Your task to perform on an android device: turn off wifi Image 0: 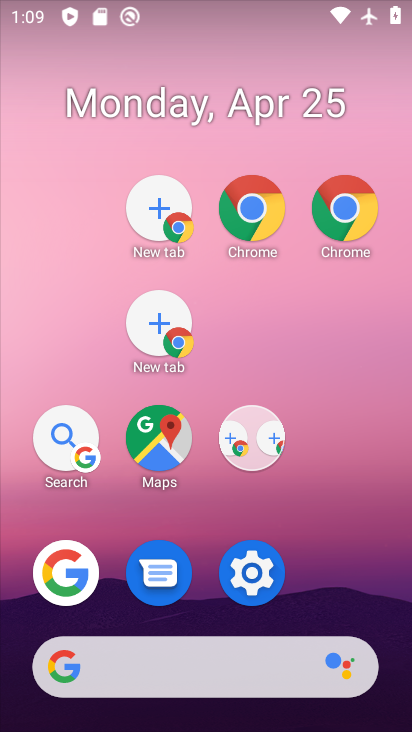
Step 0: drag from (323, 686) to (166, 112)
Your task to perform on an android device: turn off wifi Image 1: 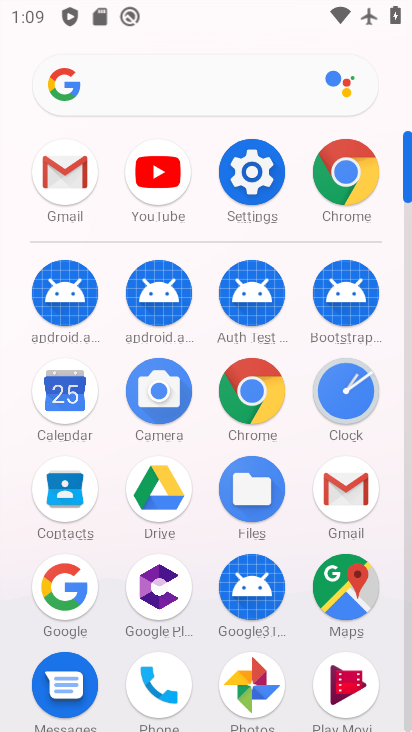
Step 1: click (250, 165)
Your task to perform on an android device: turn off wifi Image 2: 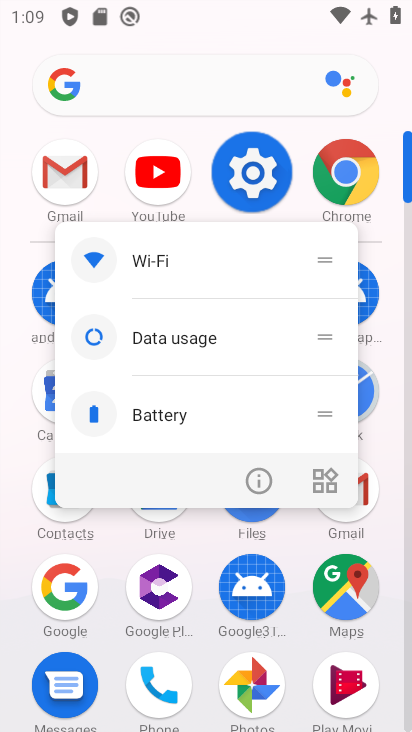
Step 2: click (251, 165)
Your task to perform on an android device: turn off wifi Image 3: 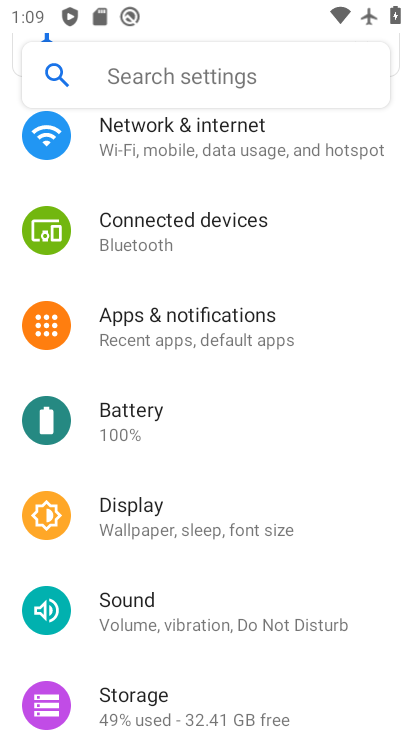
Step 3: click (181, 150)
Your task to perform on an android device: turn off wifi Image 4: 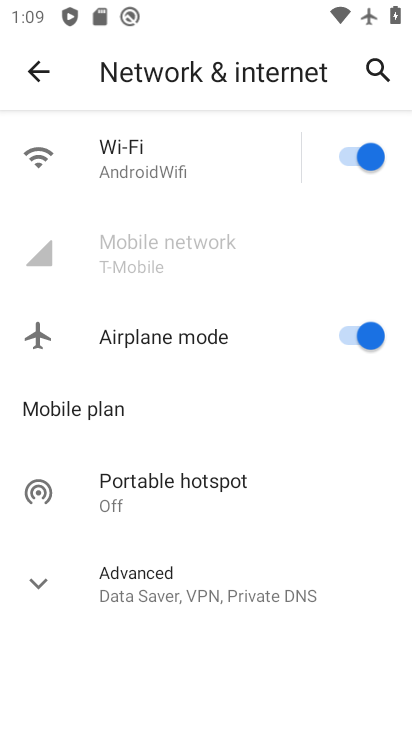
Step 4: click (360, 158)
Your task to perform on an android device: turn off wifi Image 5: 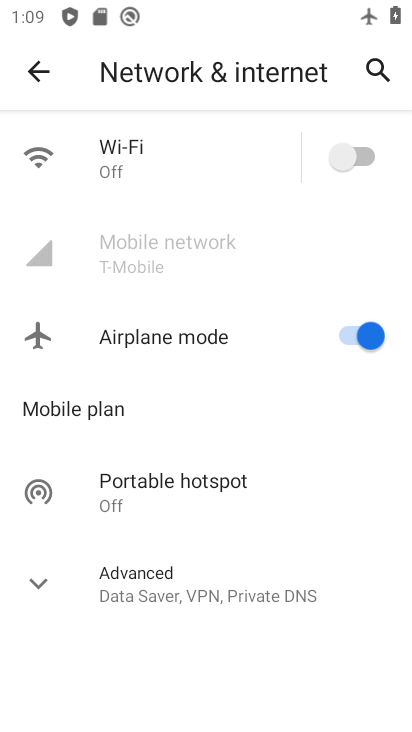
Step 5: task complete